Your task to perform on an android device: Open eBay Image 0: 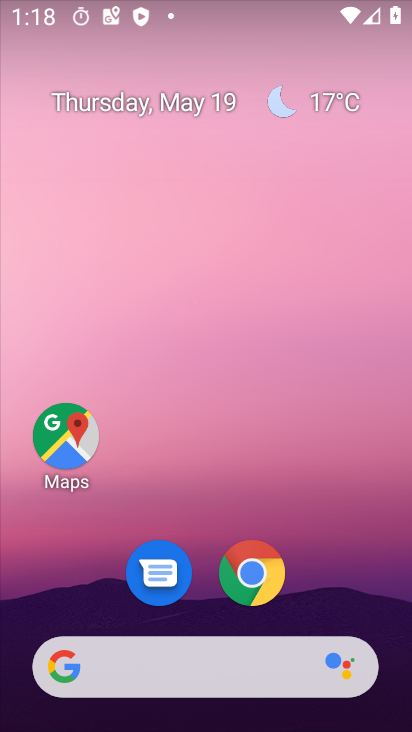
Step 0: click (253, 566)
Your task to perform on an android device: Open eBay Image 1: 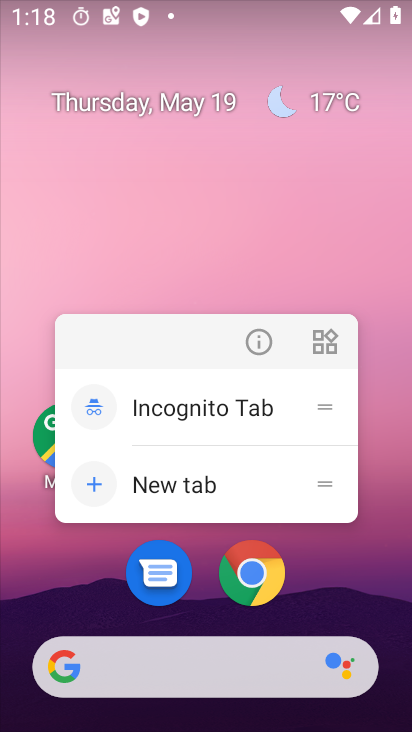
Step 1: click (269, 572)
Your task to perform on an android device: Open eBay Image 2: 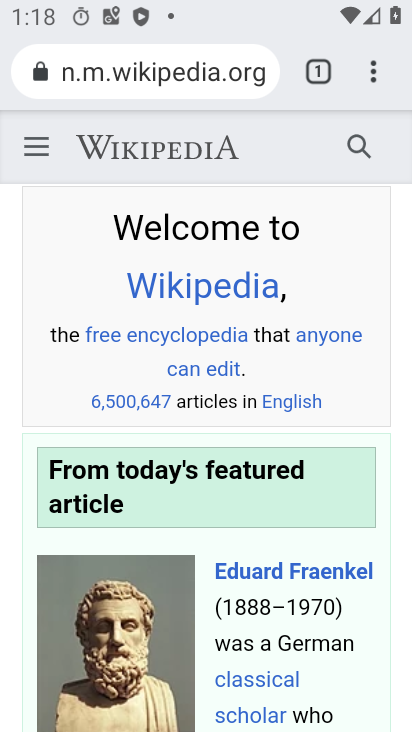
Step 2: click (316, 67)
Your task to perform on an android device: Open eBay Image 3: 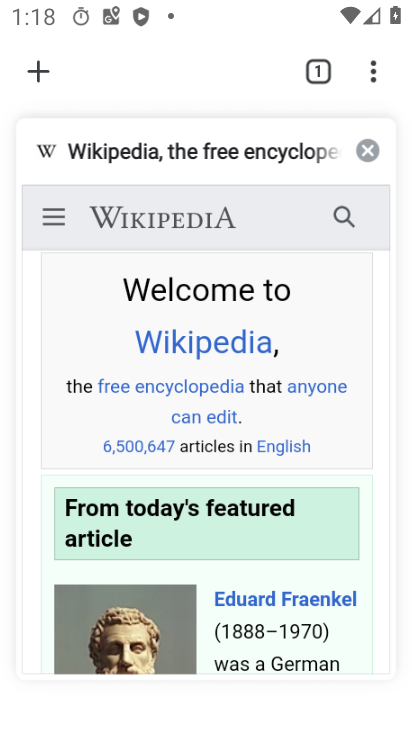
Step 3: click (44, 68)
Your task to perform on an android device: Open eBay Image 4: 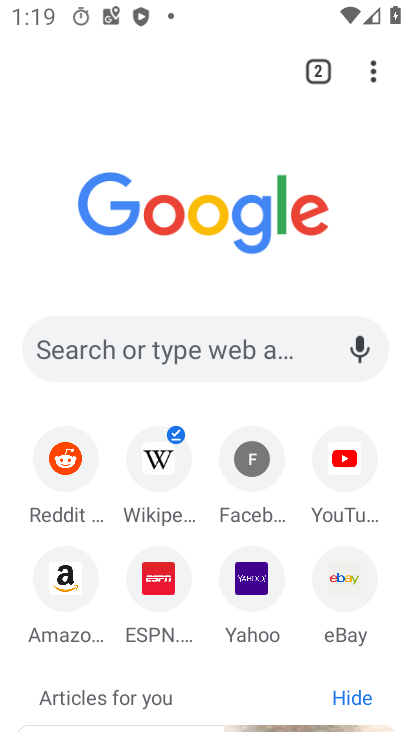
Step 4: click (337, 611)
Your task to perform on an android device: Open eBay Image 5: 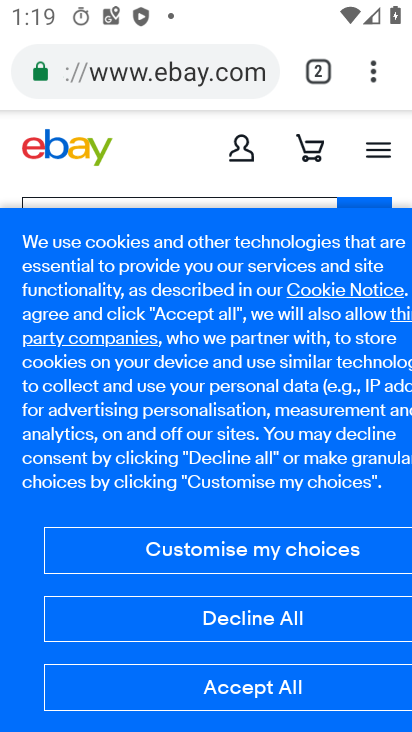
Step 5: task complete